Your task to perform on an android device: open device folders in google photos Image 0: 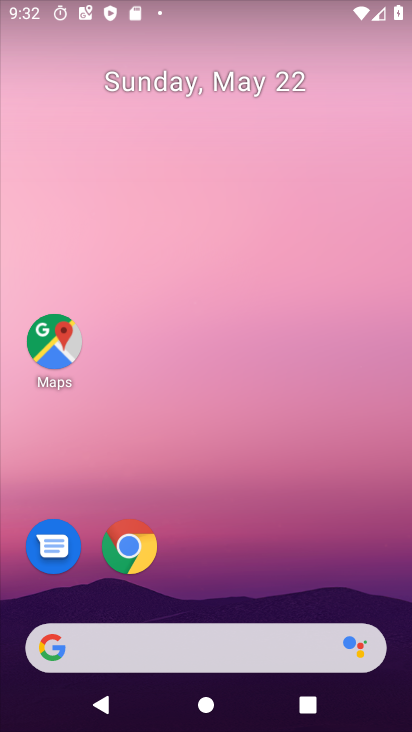
Step 0: drag from (162, 611) to (191, 172)
Your task to perform on an android device: open device folders in google photos Image 1: 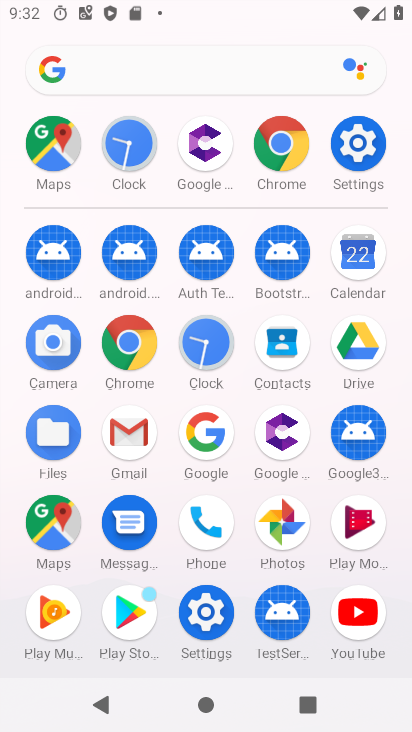
Step 1: click (274, 515)
Your task to perform on an android device: open device folders in google photos Image 2: 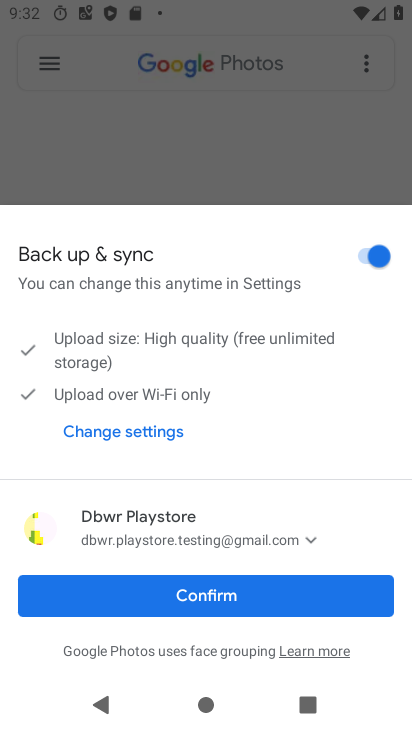
Step 2: click (203, 611)
Your task to perform on an android device: open device folders in google photos Image 3: 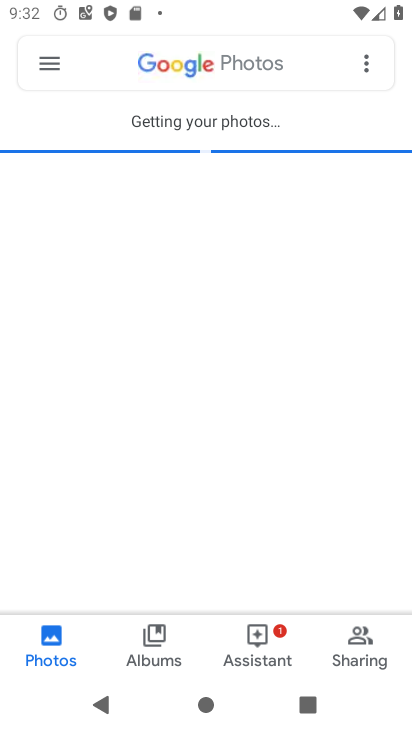
Step 3: click (36, 47)
Your task to perform on an android device: open device folders in google photos Image 4: 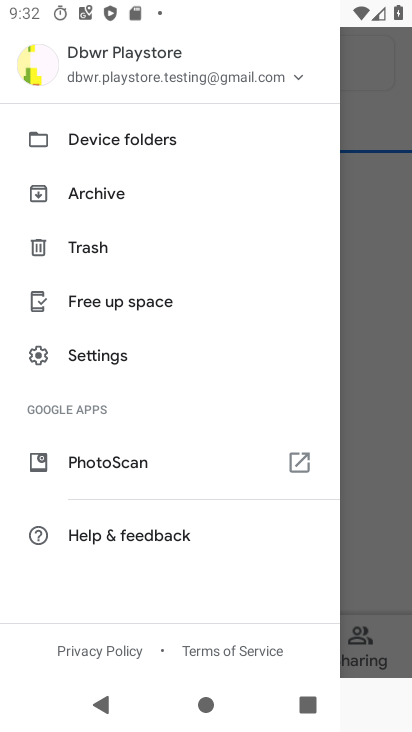
Step 4: click (129, 147)
Your task to perform on an android device: open device folders in google photos Image 5: 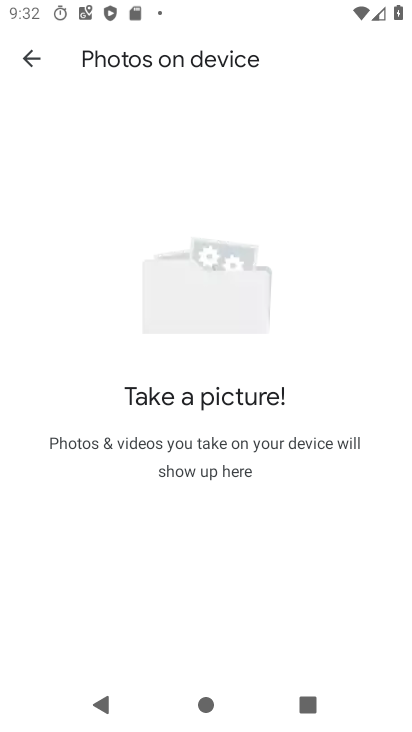
Step 5: task complete